Your task to perform on an android device: Open battery settings Image 0: 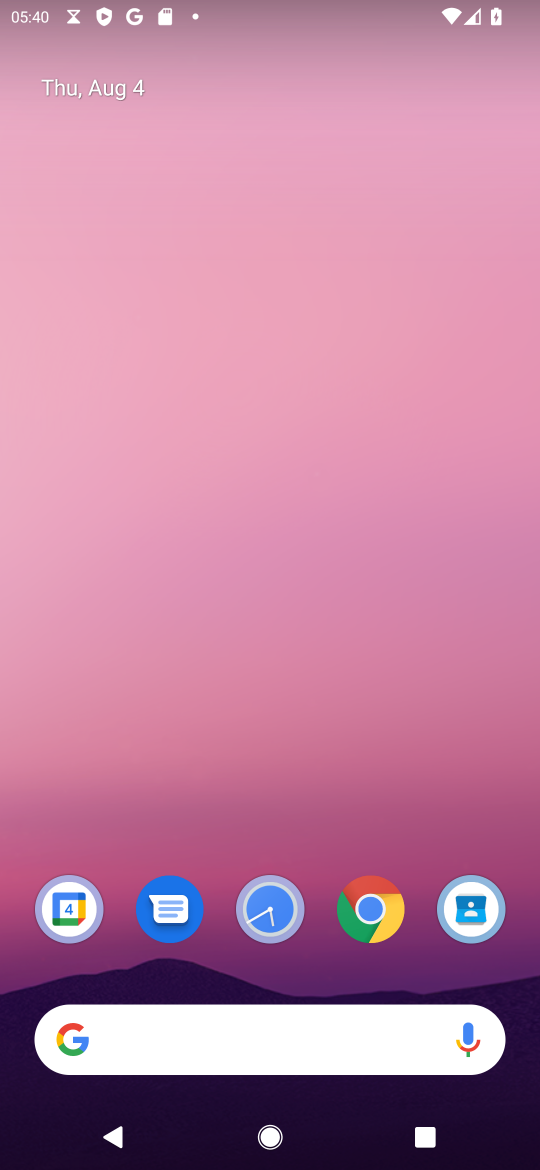
Step 0: drag from (222, 1036) to (443, 328)
Your task to perform on an android device: Open battery settings Image 1: 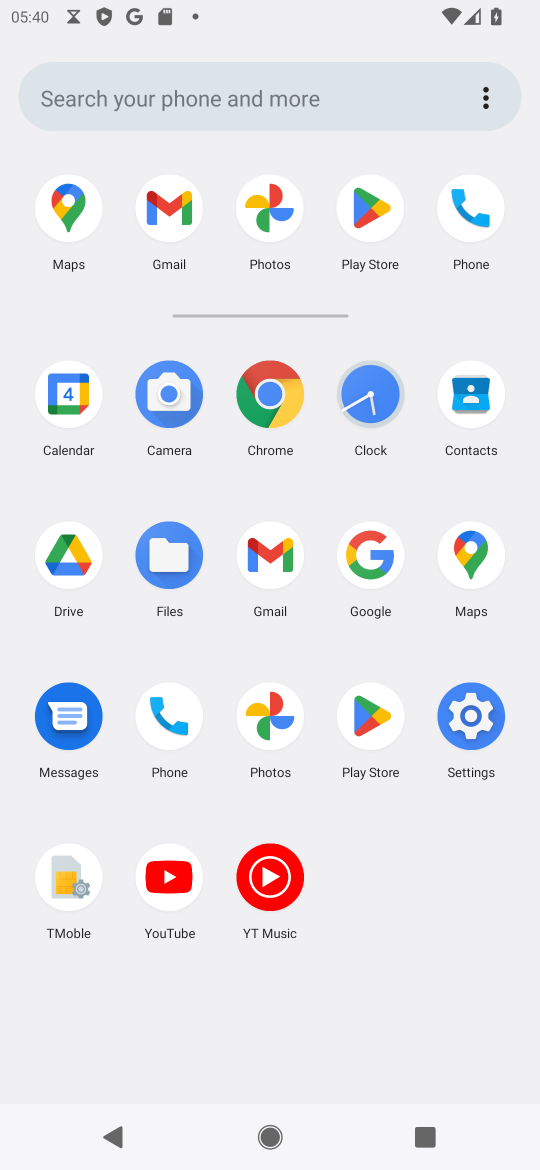
Step 1: click (463, 707)
Your task to perform on an android device: Open battery settings Image 2: 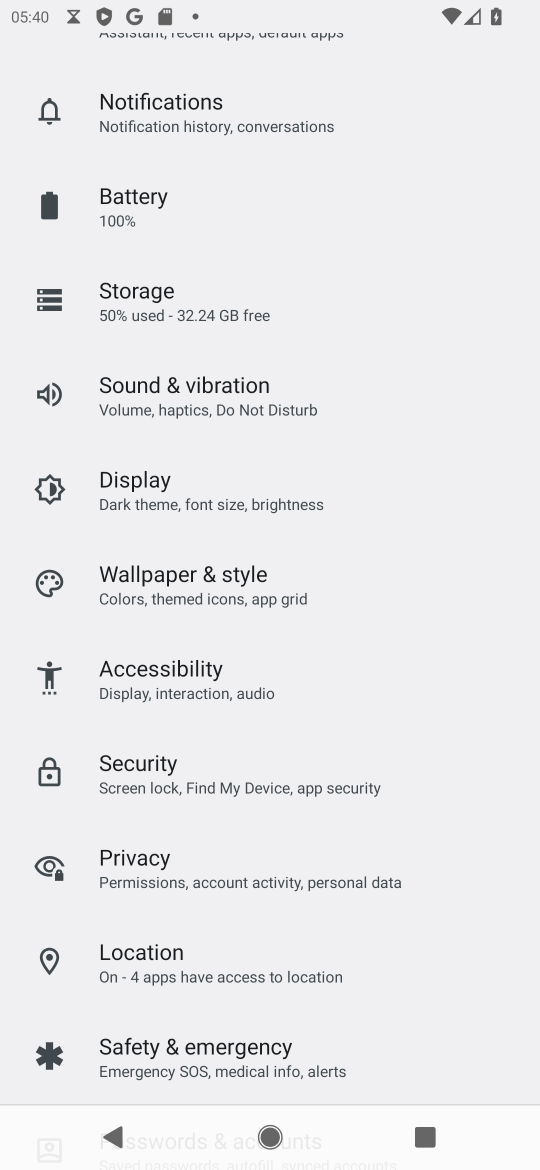
Step 2: click (148, 208)
Your task to perform on an android device: Open battery settings Image 3: 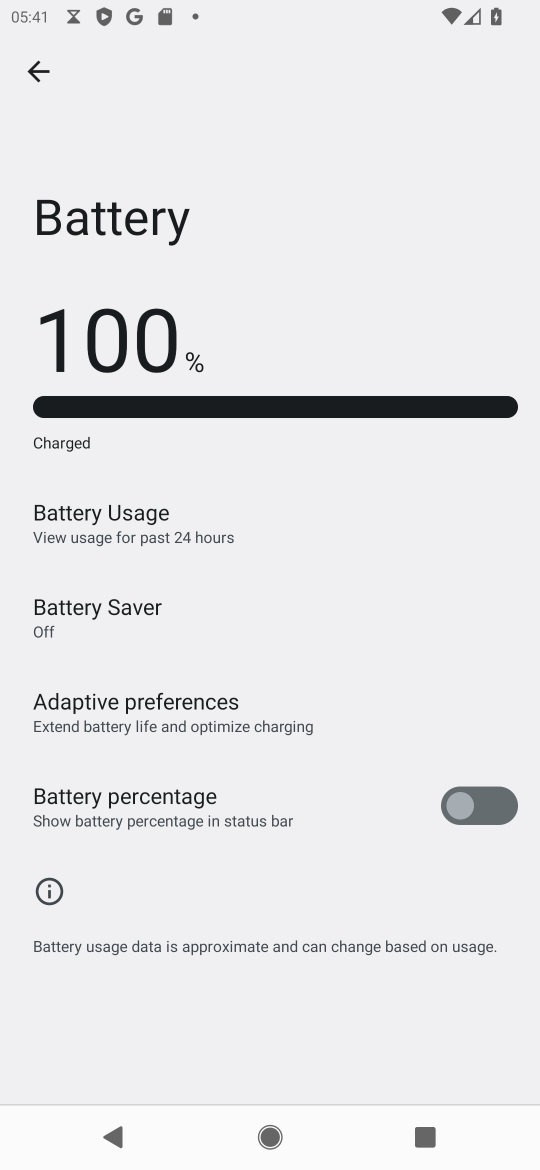
Step 3: task complete